Your task to perform on an android device: change notifications settings Image 0: 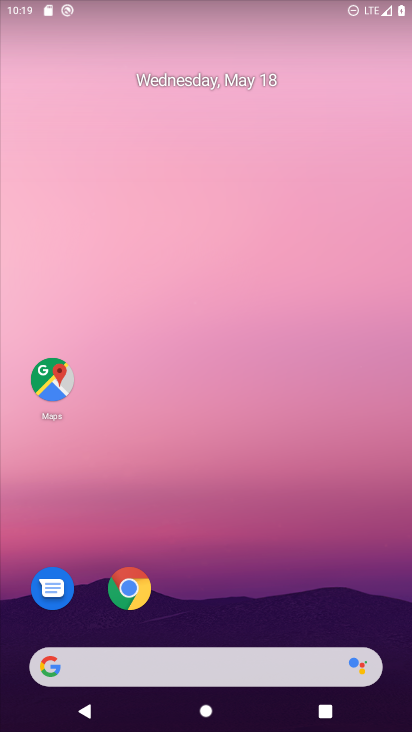
Step 0: drag from (304, 627) to (289, 19)
Your task to perform on an android device: change notifications settings Image 1: 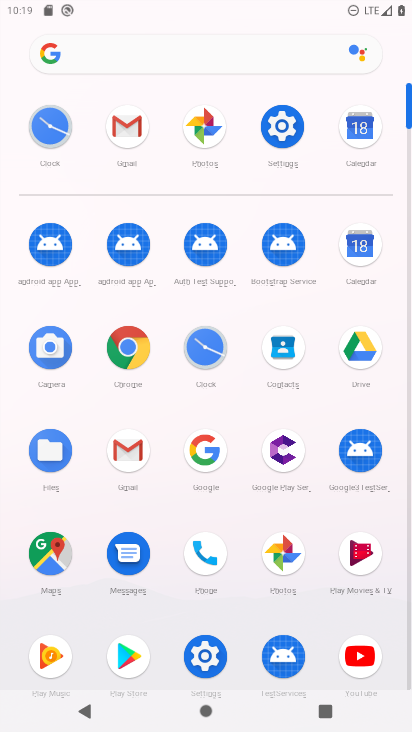
Step 1: click (282, 136)
Your task to perform on an android device: change notifications settings Image 2: 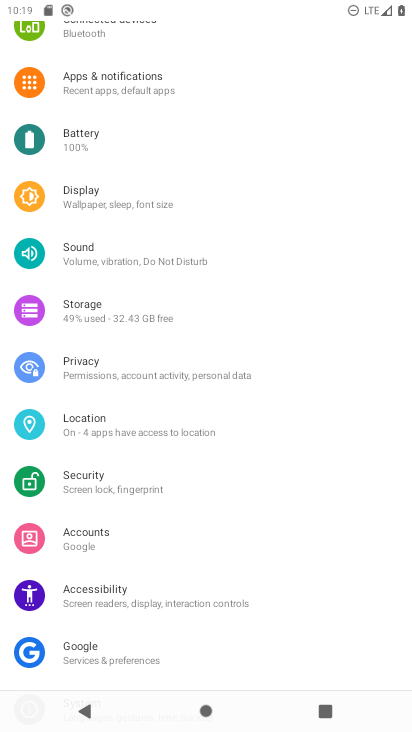
Step 2: click (127, 90)
Your task to perform on an android device: change notifications settings Image 3: 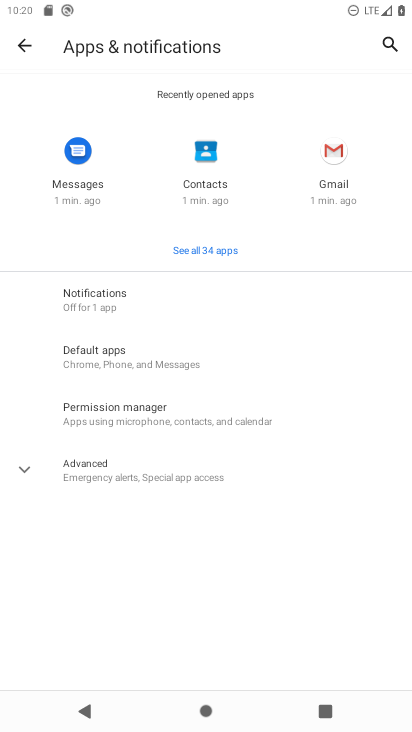
Step 3: click (81, 303)
Your task to perform on an android device: change notifications settings Image 4: 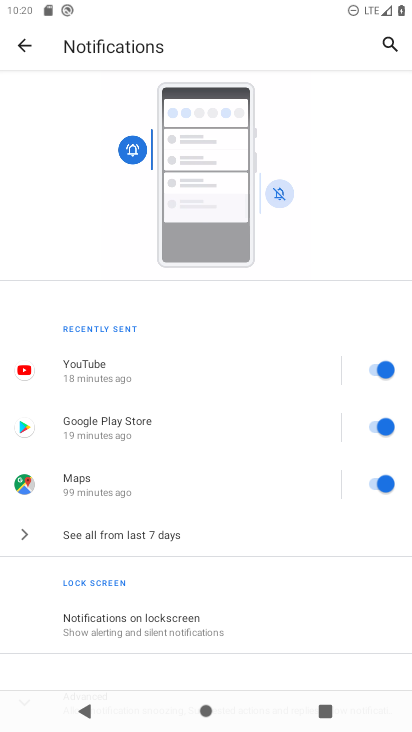
Step 4: click (121, 538)
Your task to perform on an android device: change notifications settings Image 5: 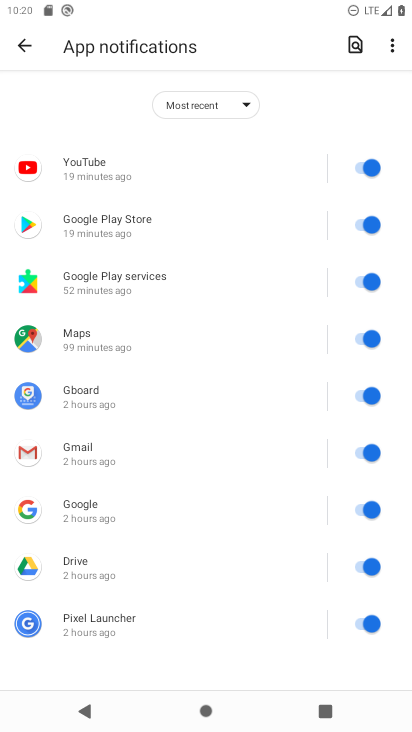
Step 5: click (240, 106)
Your task to perform on an android device: change notifications settings Image 6: 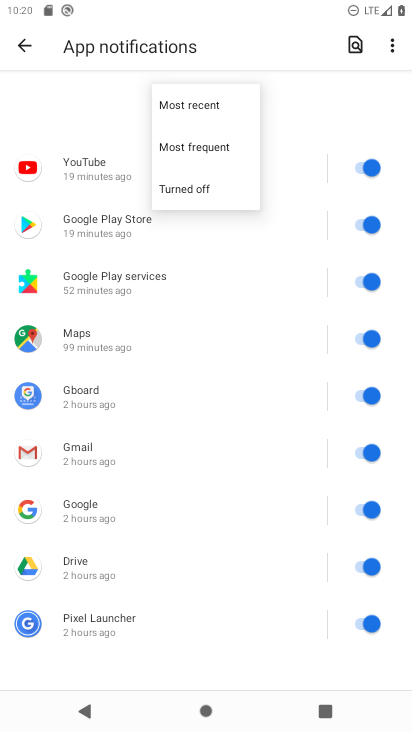
Step 6: click (184, 150)
Your task to perform on an android device: change notifications settings Image 7: 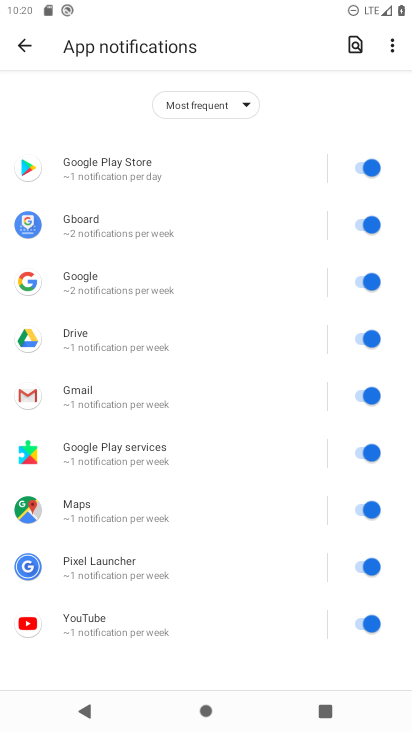
Step 7: task complete